Your task to perform on an android device: What's on my calendar tomorrow? Image 0: 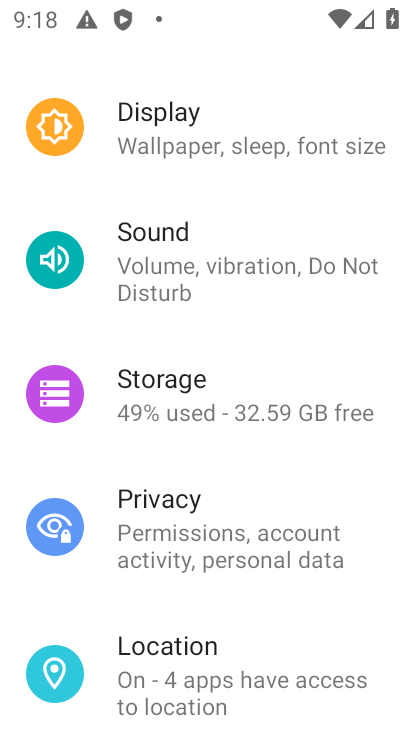
Step 0: press home button
Your task to perform on an android device: What's on my calendar tomorrow? Image 1: 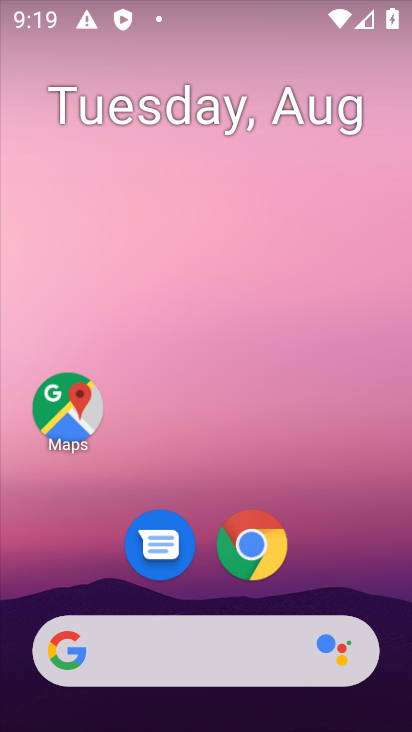
Step 1: drag from (6, 717) to (197, 187)
Your task to perform on an android device: What's on my calendar tomorrow? Image 2: 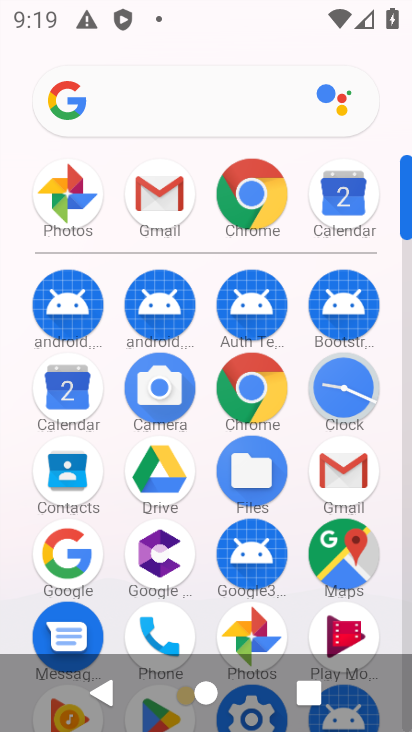
Step 2: click (330, 181)
Your task to perform on an android device: What's on my calendar tomorrow? Image 3: 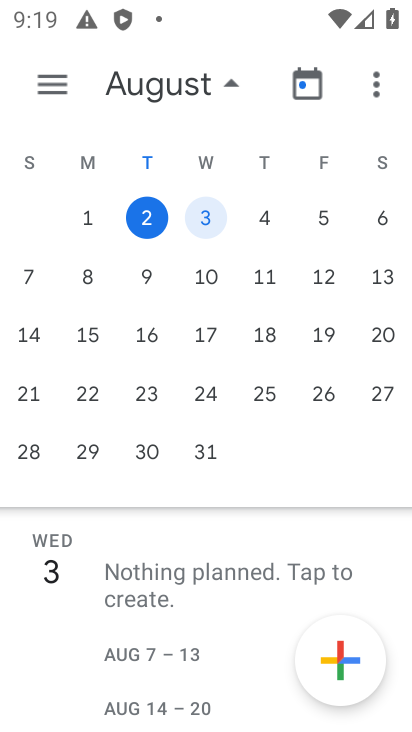
Step 3: click (184, 214)
Your task to perform on an android device: What's on my calendar tomorrow? Image 4: 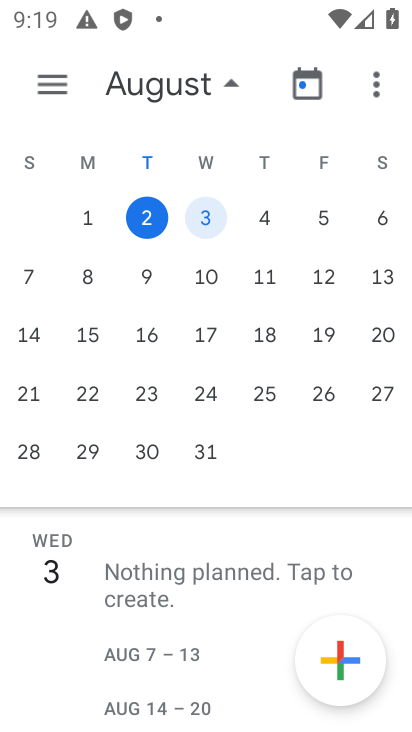
Step 4: click (210, 212)
Your task to perform on an android device: What's on my calendar tomorrow? Image 5: 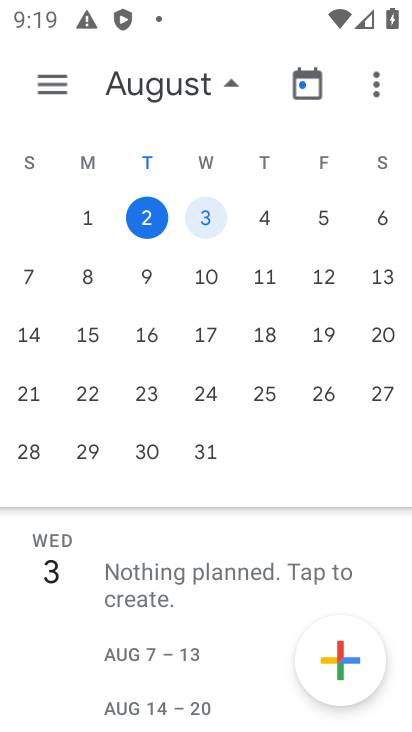
Step 5: click (211, 212)
Your task to perform on an android device: What's on my calendar tomorrow? Image 6: 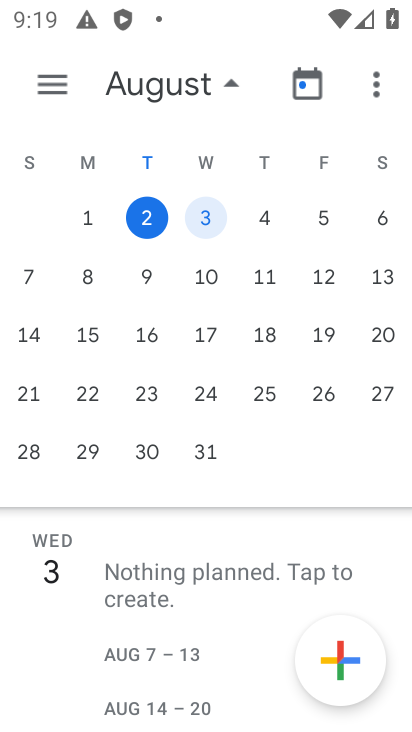
Step 6: click (206, 224)
Your task to perform on an android device: What's on my calendar tomorrow? Image 7: 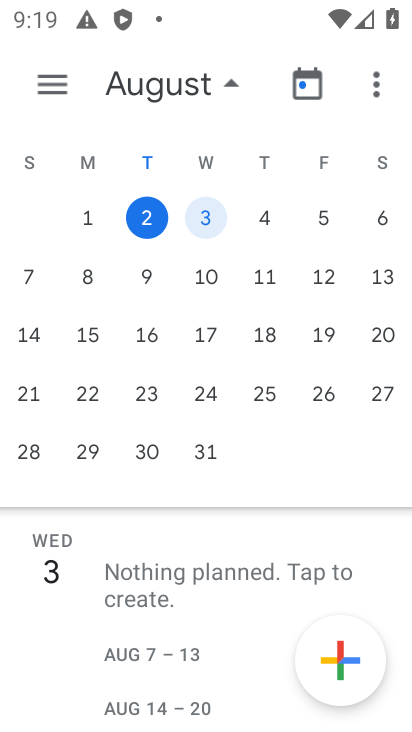
Step 7: task complete